Your task to perform on an android device: Go to calendar. Show me events next week Image 0: 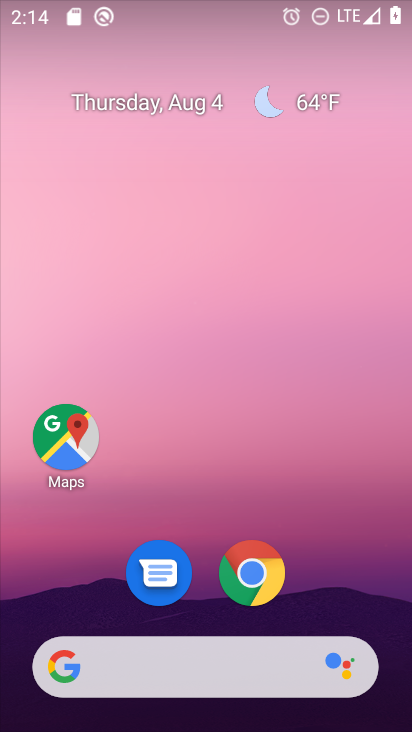
Step 0: drag from (369, 510) to (337, 110)
Your task to perform on an android device: Go to calendar. Show me events next week Image 1: 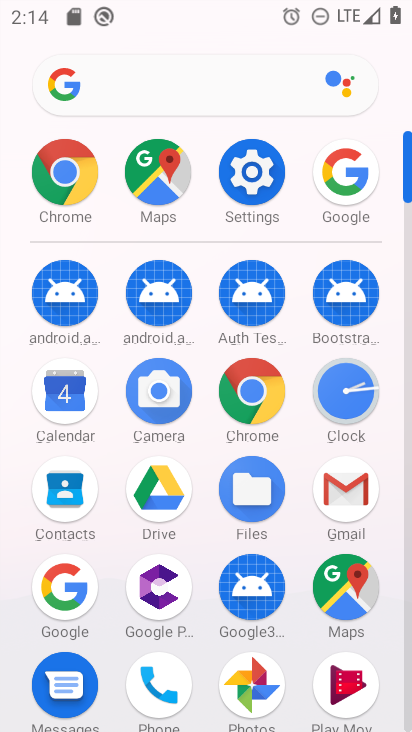
Step 1: click (49, 395)
Your task to perform on an android device: Go to calendar. Show me events next week Image 2: 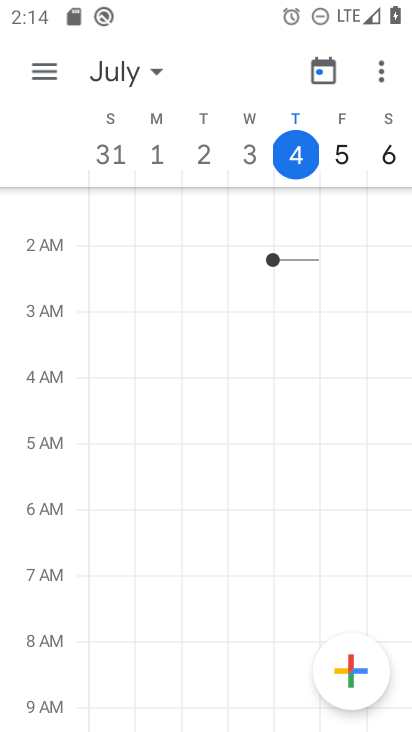
Step 2: click (138, 60)
Your task to perform on an android device: Go to calendar. Show me events next week Image 3: 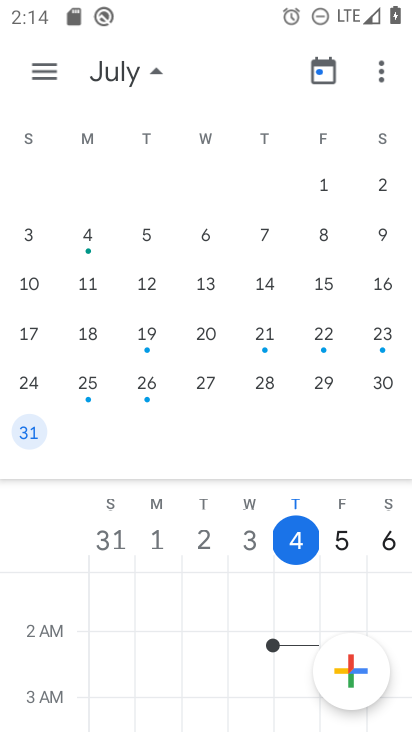
Step 3: drag from (369, 425) to (3, 367)
Your task to perform on an android device: Go to calendar. Show me events next week Image 4: 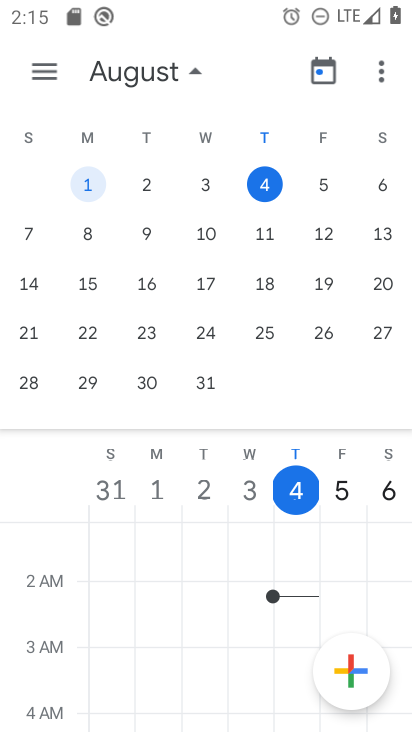
Step 4: drag from (350, 303) to (68, 282)
Your task to perform on an android device: Go to calendar. Show me events next week Image 5: 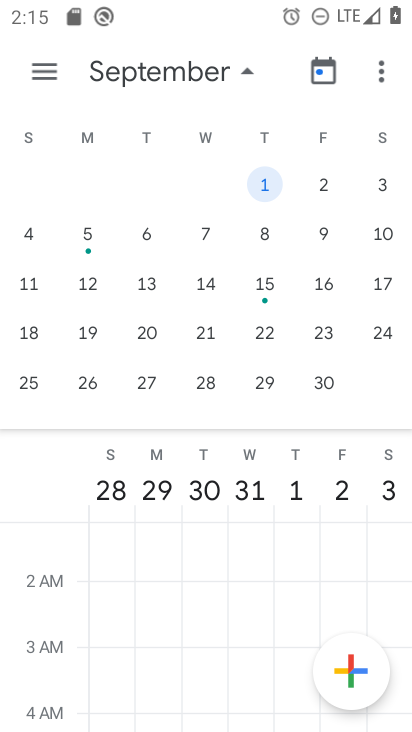
Step 5: click (209, 286)
Your task to perform on an android device: Go to calendar. Show me events next week Image 6: 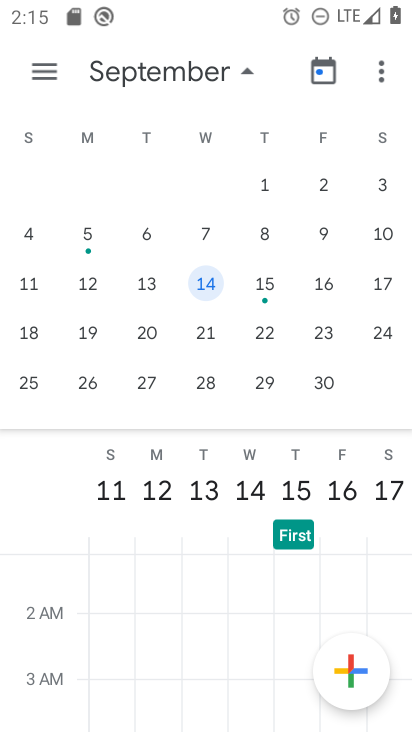
Step 6: task complete